Your task to perform on an android device: turn on location history Image 0: 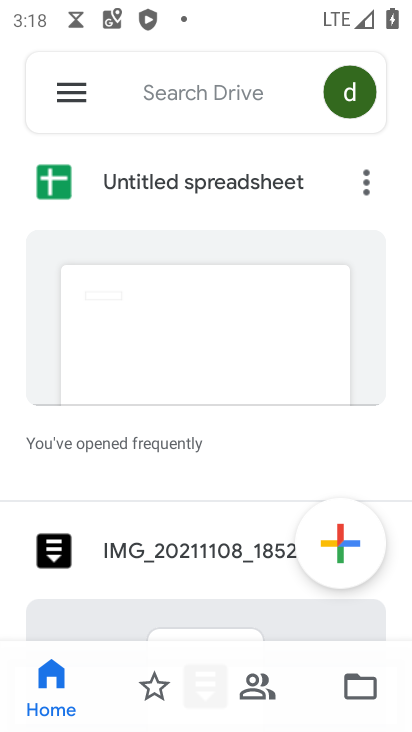
Step 0: press home button
Your task to perform on an android device: turn on location history Image 1: 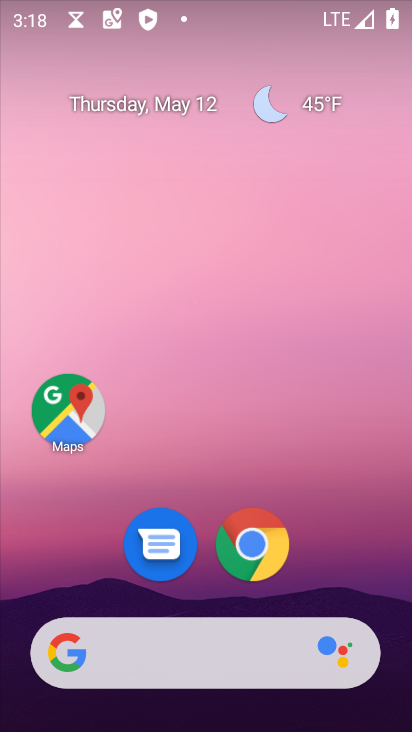
Step 1: drag from (315, 591) to (244, 40)
Your task to perform on an android device: turn on location history Image 2: 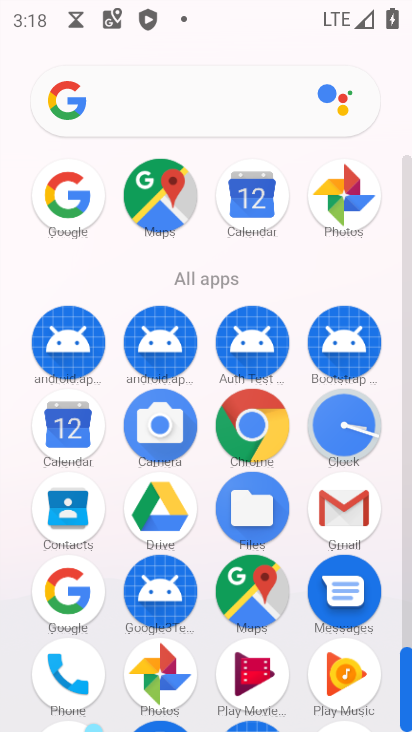
Step 2: drag from (204, 545) to (197, 201)
Your task to perform on an android device: turn on location history Image 3: 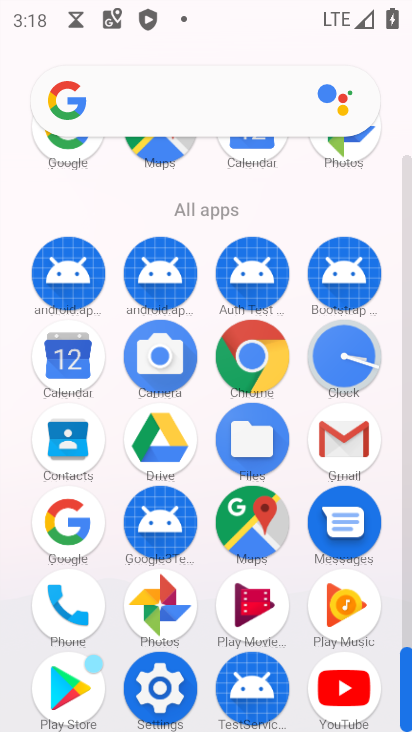
Step 3: click (150, 683)
Your task to perform on an android device: turn on location history Image 4: 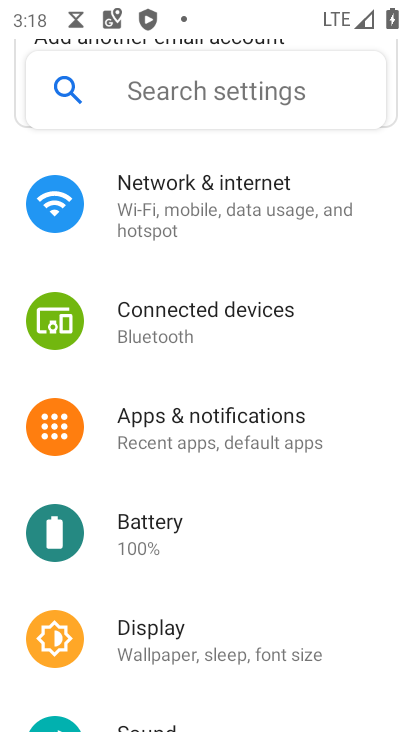
Step 4: drag from (138, 670) to (177, 378)
Your task to perform on an android device: turn on location history Image 5: 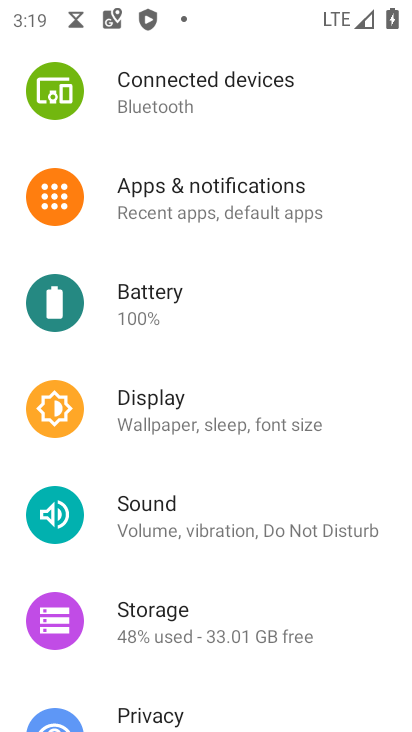
Step 5: drag from (286, 638) to (279, 385)
Your task to perform on an android device: turn on location history Image 6: 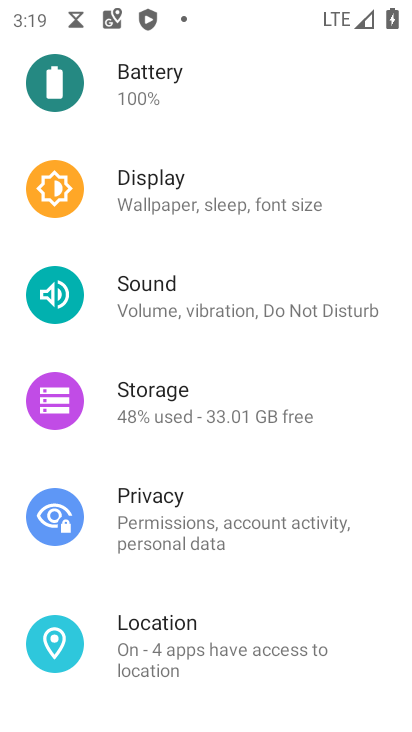
Step 6: click (264, 666)
Your task to perform on an android device: turn on location history Image 7: 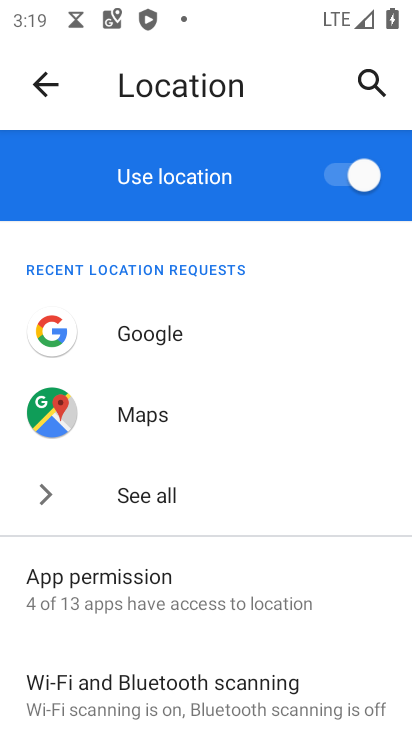
Step 7: drag from (276, 644) to (212, 328)
Your task to perform on an android device: turn on location history Image 8: 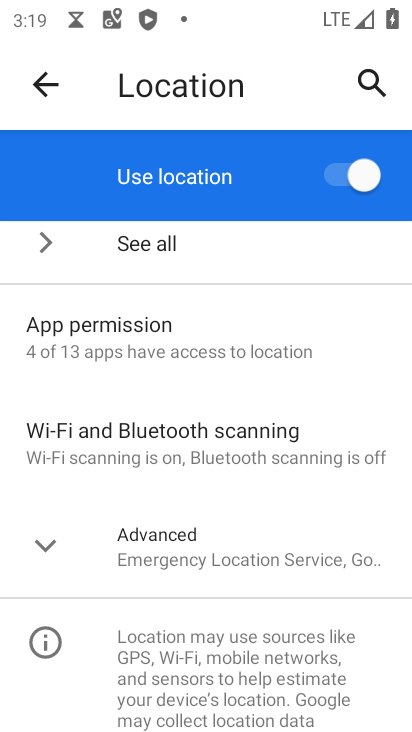
Step 8: click (190, 553)
Your task to perform on an android device: turn on location history Image 9: 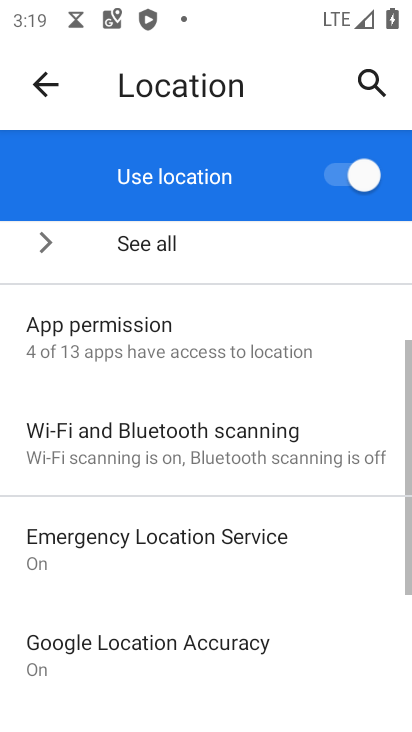
Step 9: drag from (210, 666) to (197, 384)
Your task to perform on an android device: turn on location history Image 10: 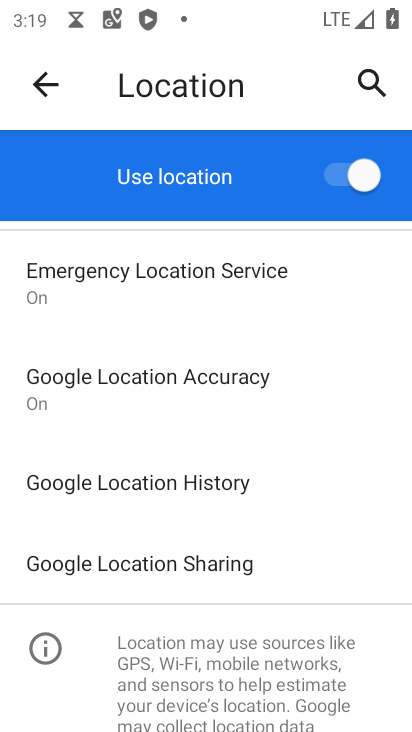
Step 10: click (202, 481)
Your task to perform on an android device: turn on location history Image 11: 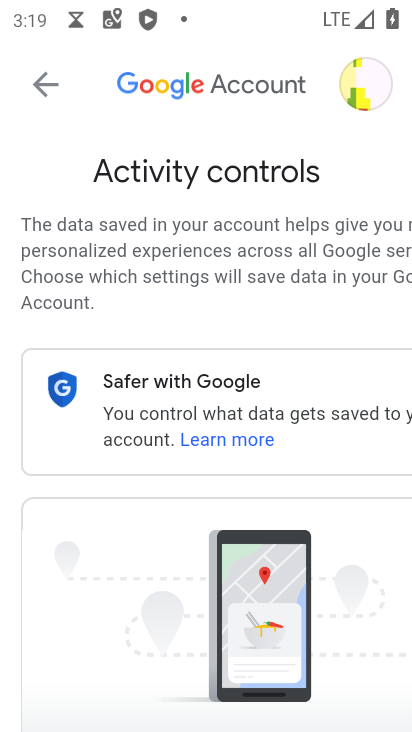
Step 11: task complete